Your task to perform on an android device: Search for seafood restaurants on Google Maps Image 0: 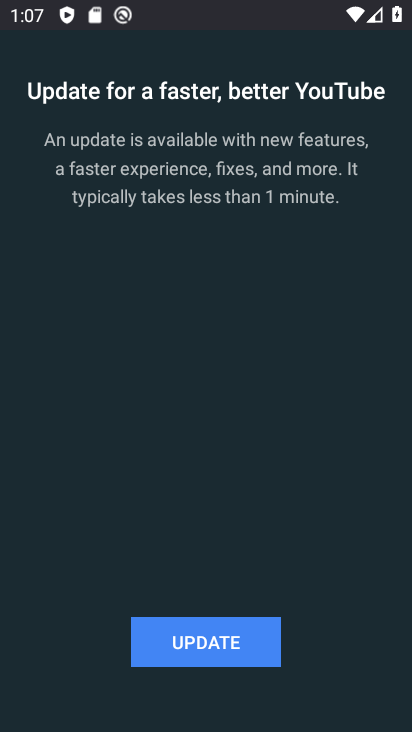
Step 0: press back button
Your task to perform on an android device: Search for seafood restaurants on Google Maps Image 1: 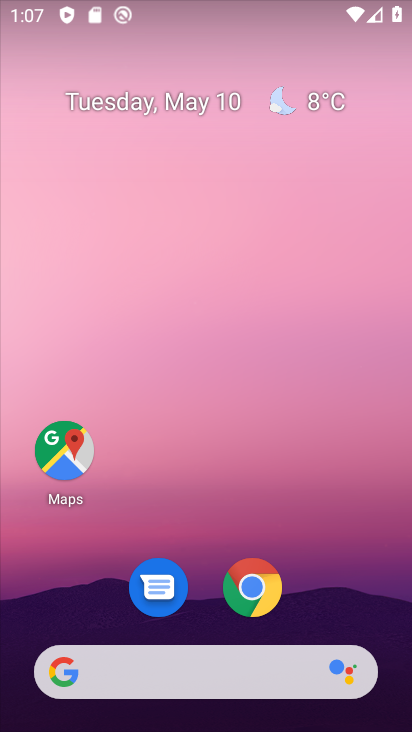
Step 1: click (74, 440)
Your task to perform on an android device: Search for seafood restaurants on Google Maps Image 2: 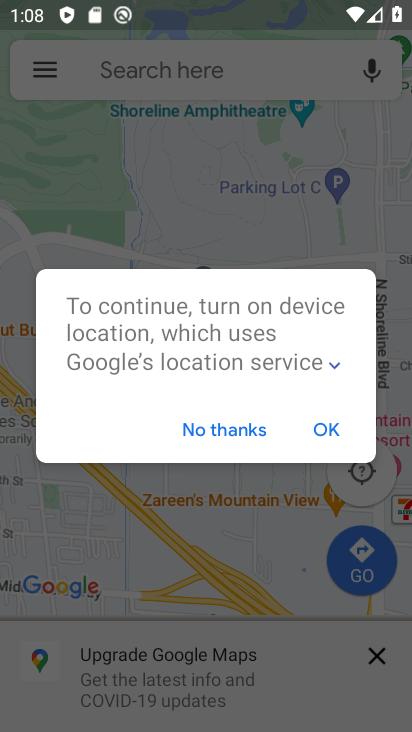
Step 2: click (319, 428)
Your task to perform on an android device: Search for seafood restaurants on Google Maps Image 3: 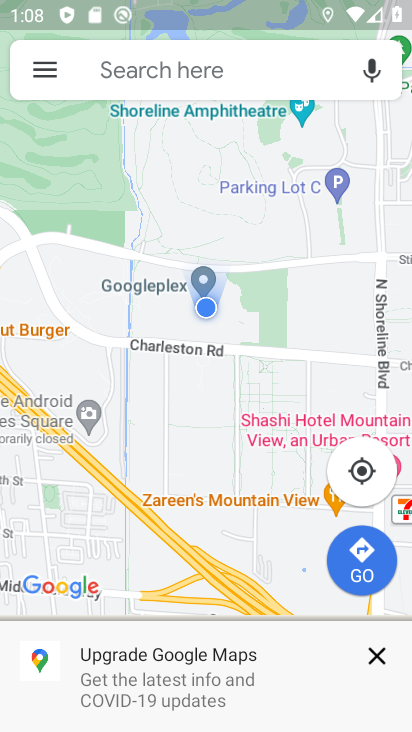
Step 3: click (180, 76)
Your task to perform on an android device: Search for seafood restaurants on Google Maps Image 4: 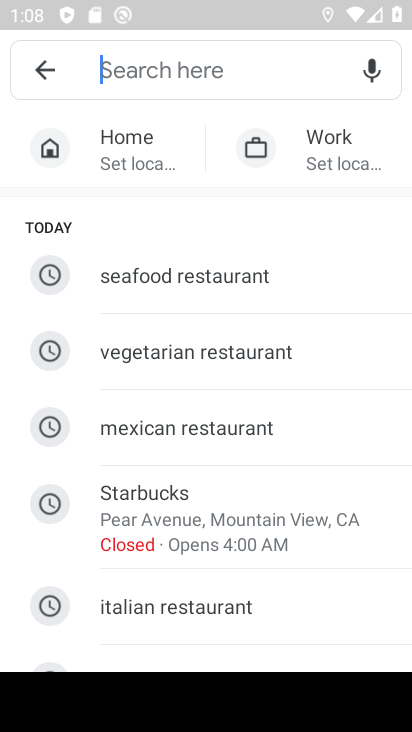
Step 4: click (189, 281)
Your task to perform on an android device: Search for seafood restaurants on Google Maps Image 5: 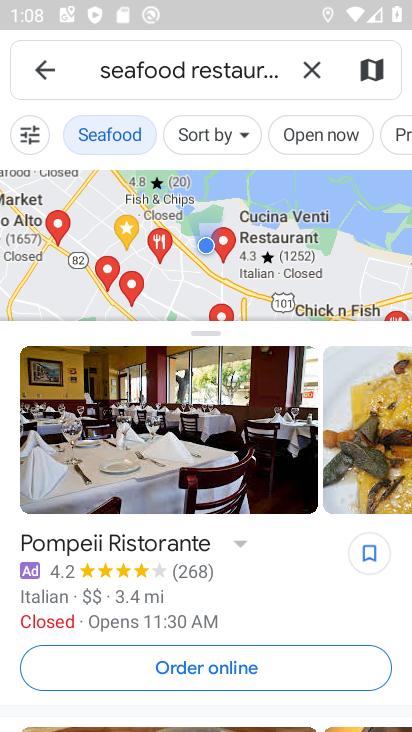
Step 5: task complete